Your task to perform on an android device: turn on wifi Image 0: 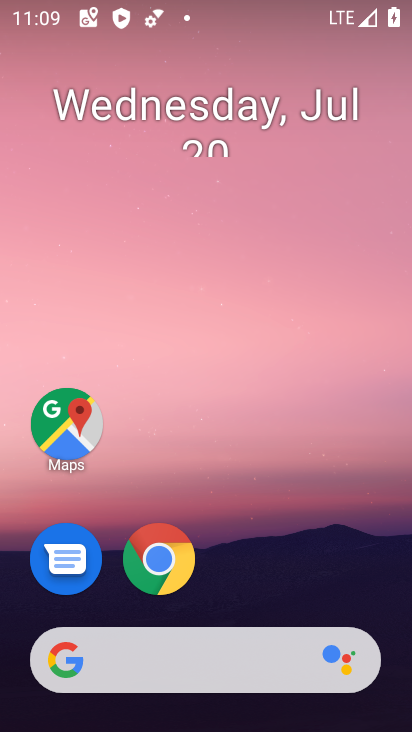
Step 0: click (369, 36)
Your task to perform on an android device: turn on wifi Image 1: 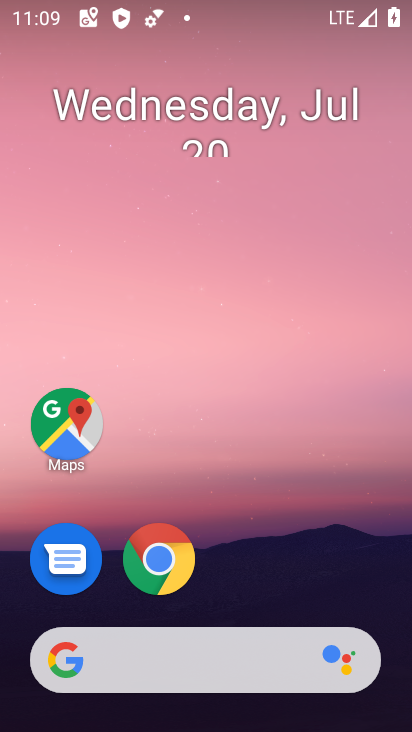
Step 1: drag from (199, 614) to (295, 23)
Your task to perform on an android device: turn on wifi Image 2: 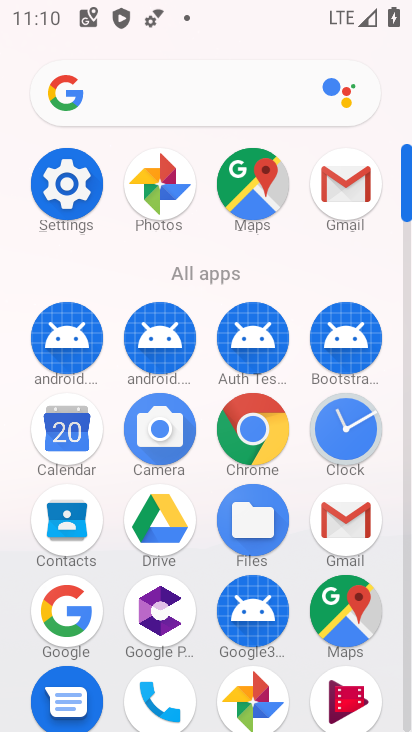
Step 2: click (65, 192)
Your task to perform on an android device: turn on wifi Image 3: 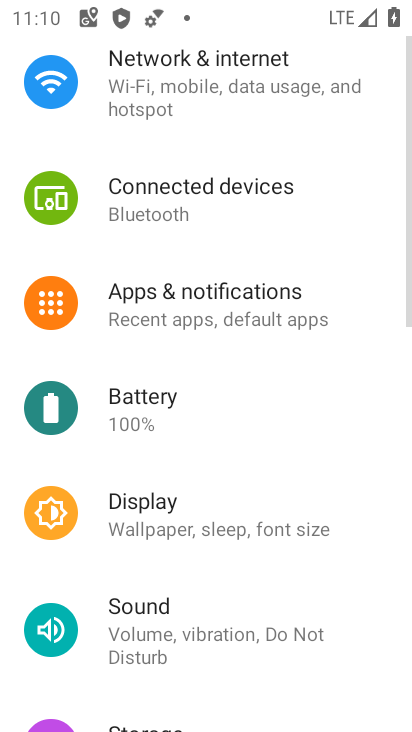
Step 3: drag from (223, 205) to (157, 714)
Your task to perform on an android device: turn on wifi Image 4: 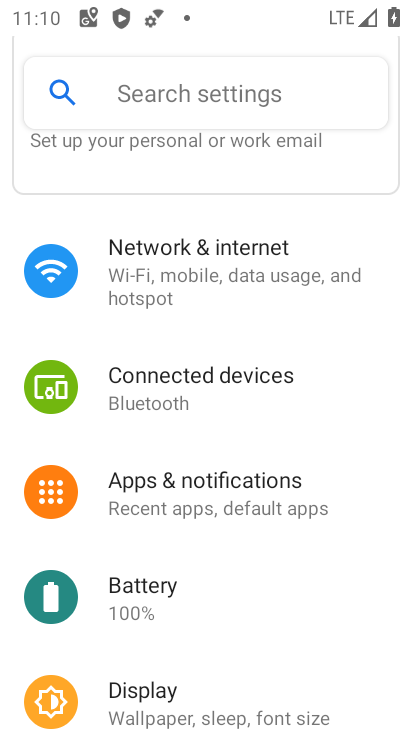
Step 4: click (157, 250)
Your task to perform on an android device: turn on wifi Image 5: 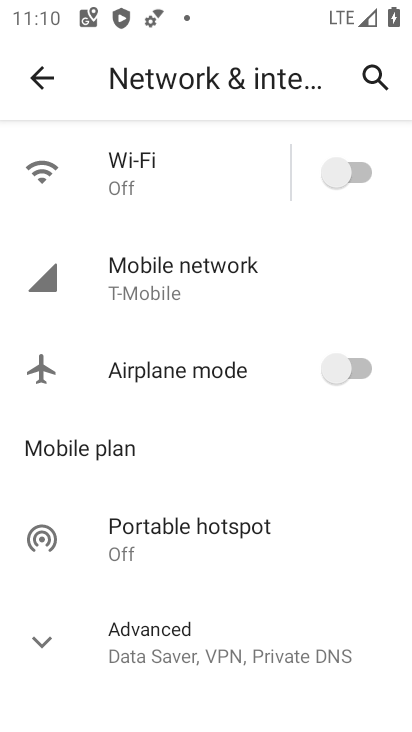
Step 5: click (341, 163)
Your task to perform on an android device: turn on wifi Image 6: 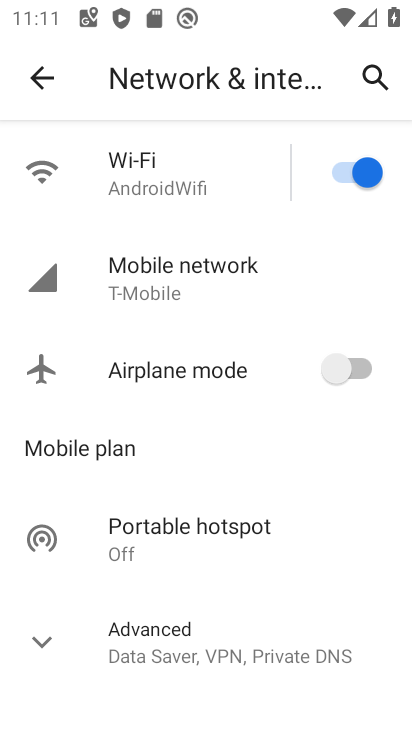
Step 6: task complete